Your task to perform on an android device: check android version Image 0: 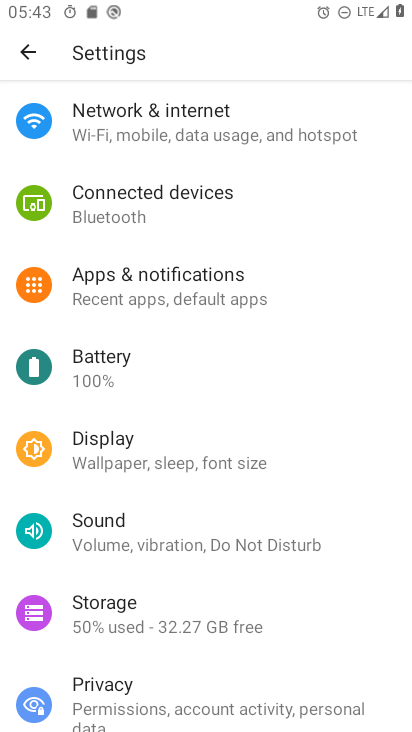
Step 0: press home button
Your task to perform on an android device: check android version Image 1: 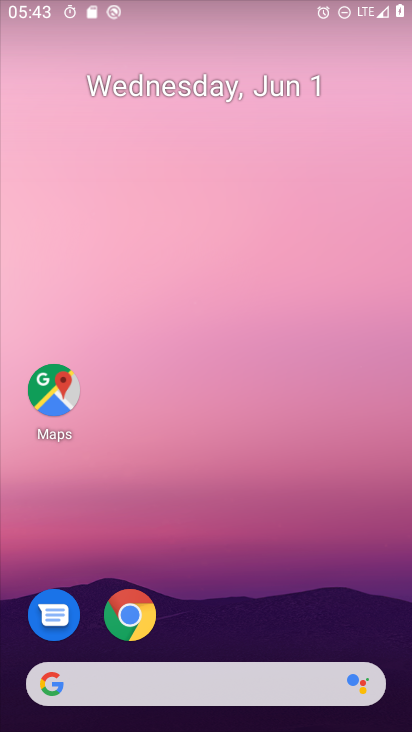
Step 1: drag from (285, 645) to (339, 12)
Your task to perform on an android device: check android version Image 2: 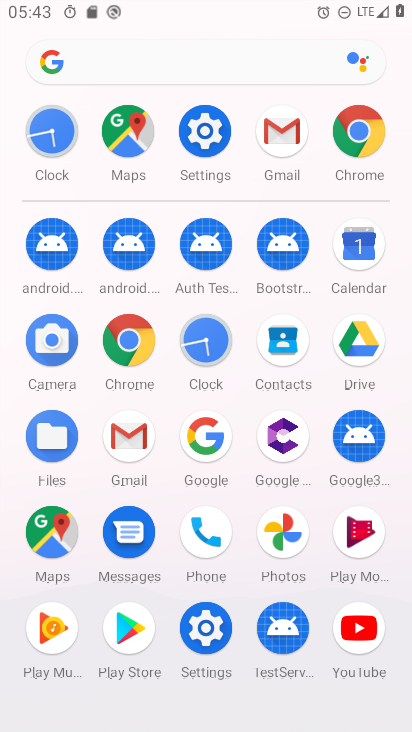
Step 2: click (212, 106)
Your task to perform on an android device: check android version Image 3: 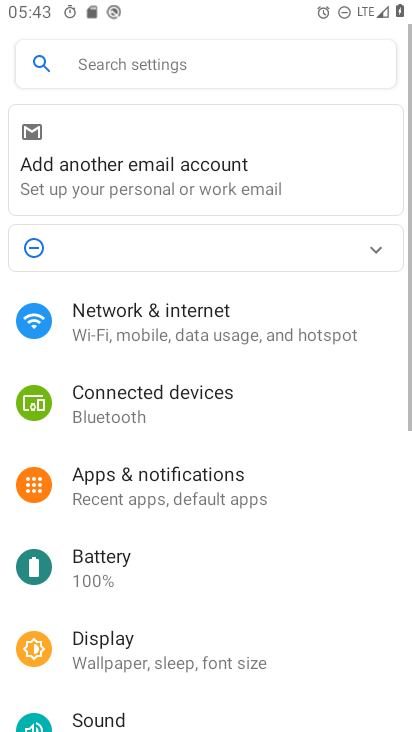
Step 3: drag from (254, 665) to (243, 130)
Your task to perform on an android device: check android version Image 4: 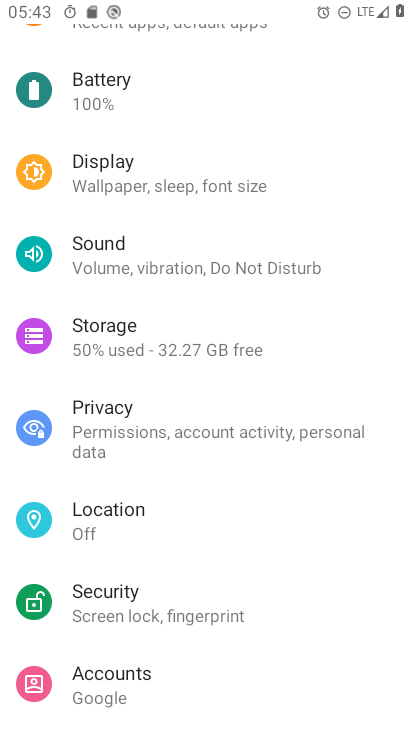
Step 4: drag from (220, 686) to (234, 412)
Your task to perform on an android device: check android version Image 5: 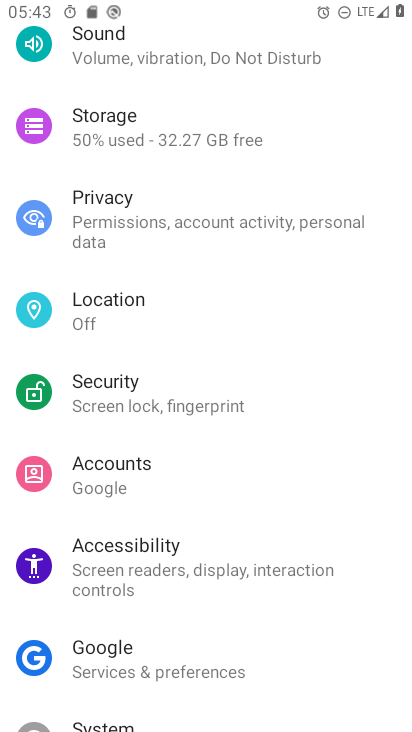
Step 5: drag from (166, 709) to (230, 357)
Your task to perform on an android device: check android version Image 6: 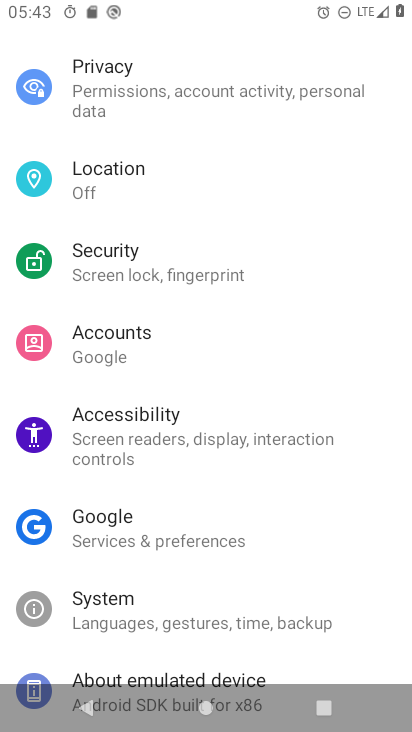
Step 6: click (165, 675)
Your task to perform on an android device: check android version Image 7: 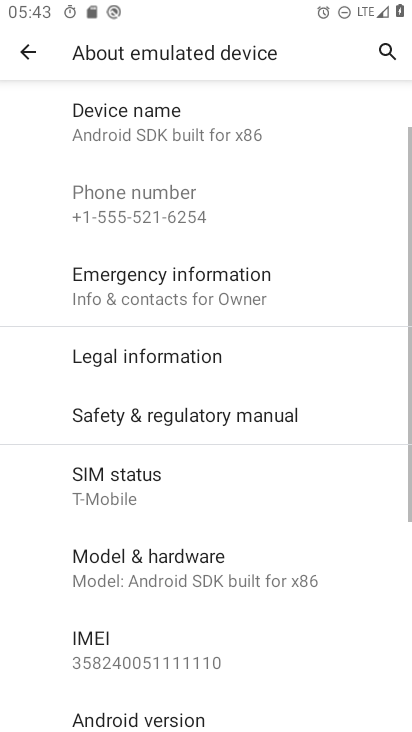
Step 7: drag from (207, 669) to (256, 331)
Your task to perform on an android device: check android version Image 8: 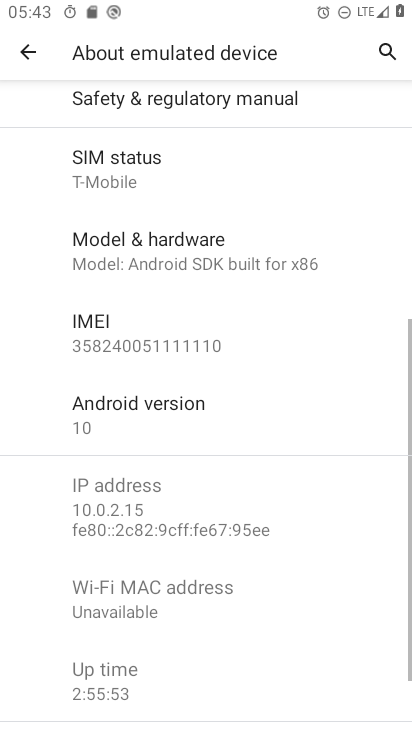
Step 8: click (189, 420)
Your task to perform on an android device: check android version Image 9: 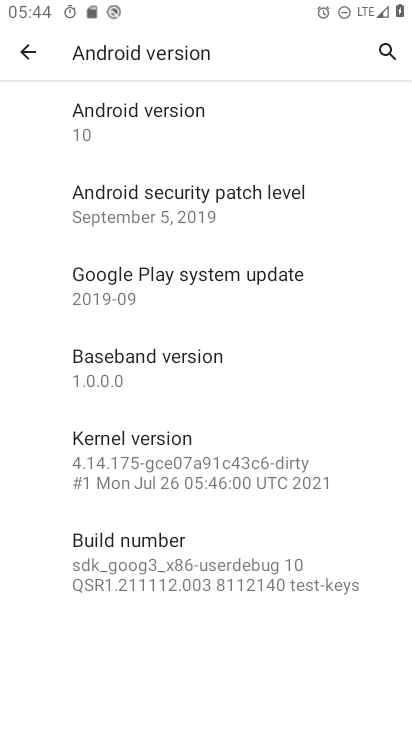
Step 9: task complete